Your task to perform on an android device: Show me productivity apps on the Play Store Image 0: 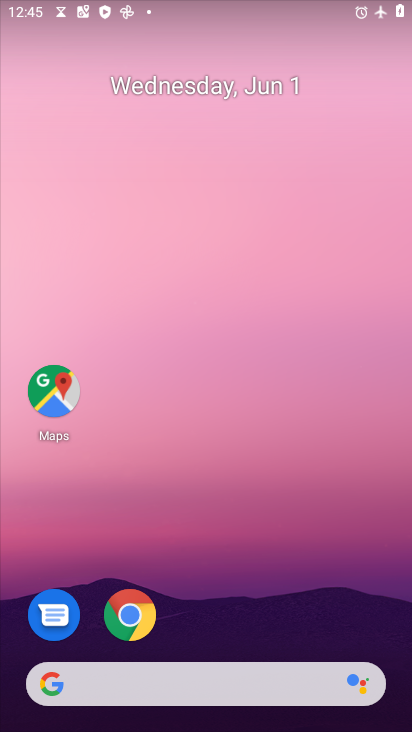
Step 0: drag from (239, 546) to (246, 139)
Your task to perform on an android device: Show me productivity apps on the Play Store Image 1: 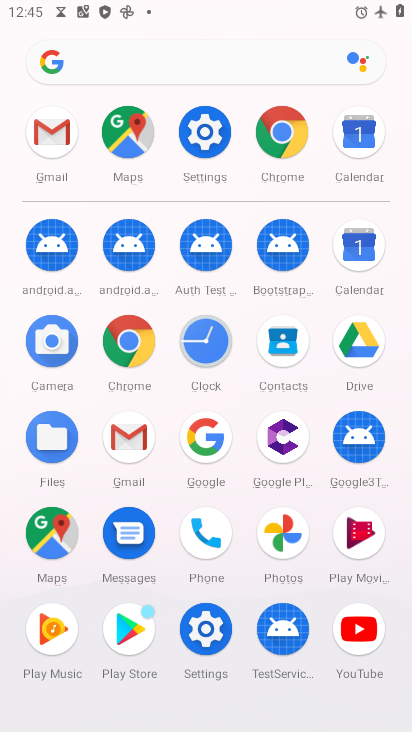
Step 1: click (139, 647)
Your task to perform on an android device: Show me productivity apps on the Play Store Image 2: 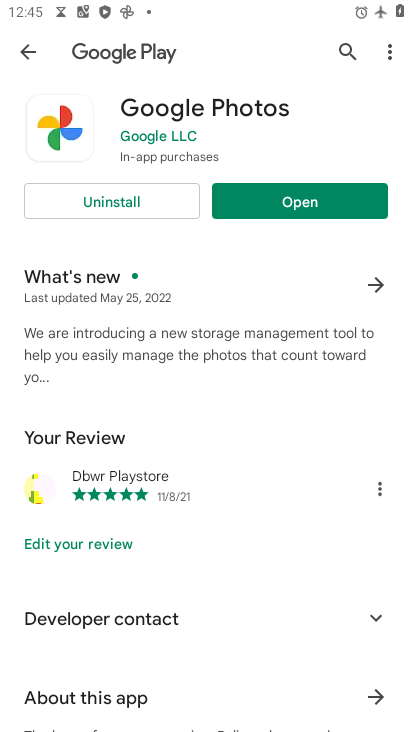
Step 2: click (36, 50)
Your task to perform on an android device: Show me productivity apps on the Play Store Image 3: 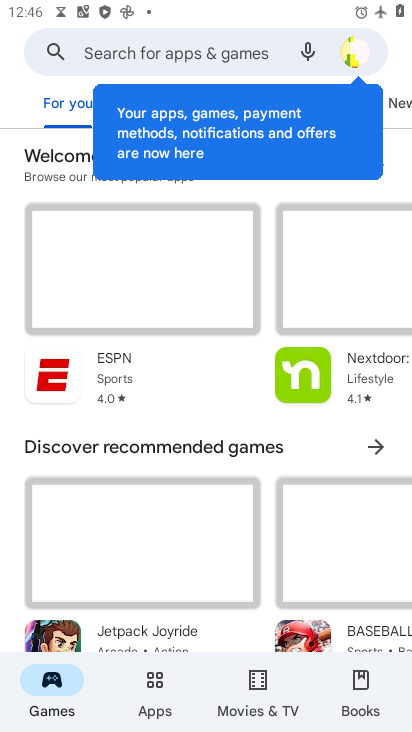
Step 3: click (205, 55)
Your task to perform on an android device: Show me productivity apps on the Play Store Image 4: 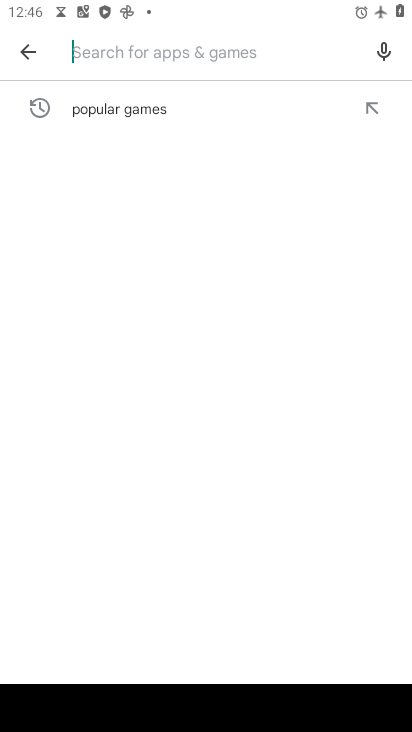
Step 4: type "productivity apps"
Your task to perform on an android device: Show me productivity apps on the Play Store Image 5: 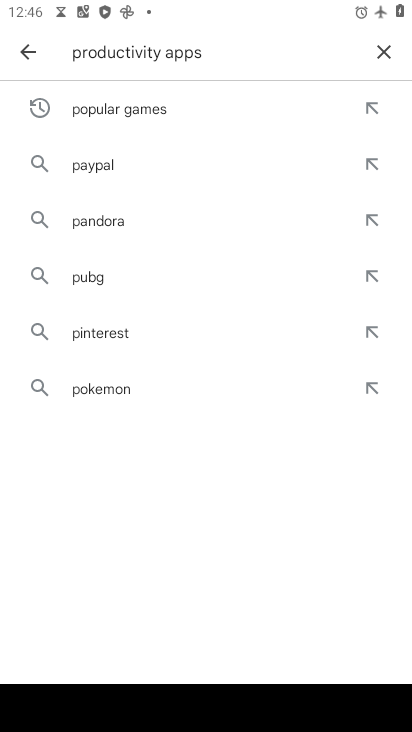
Step 5: press enter
Your task to perform on an android device: Show me productivity apps on the Play Store Image 6: 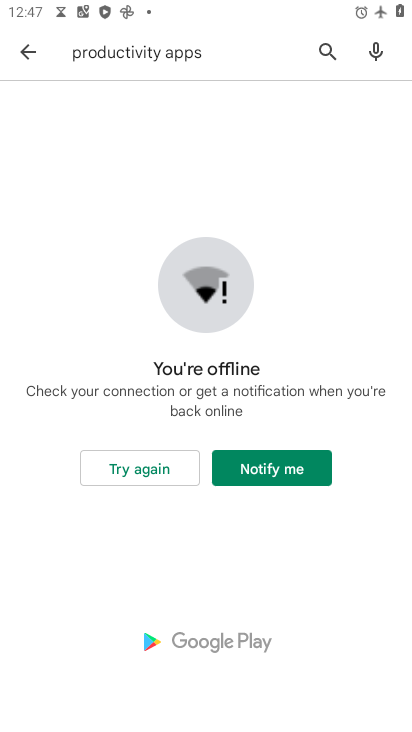
Step 6: task complete